Your task to perform on an android device: Search for razer thresher on amazon.com, select the first entry, add it to the cart, then select checkout. Image 0: 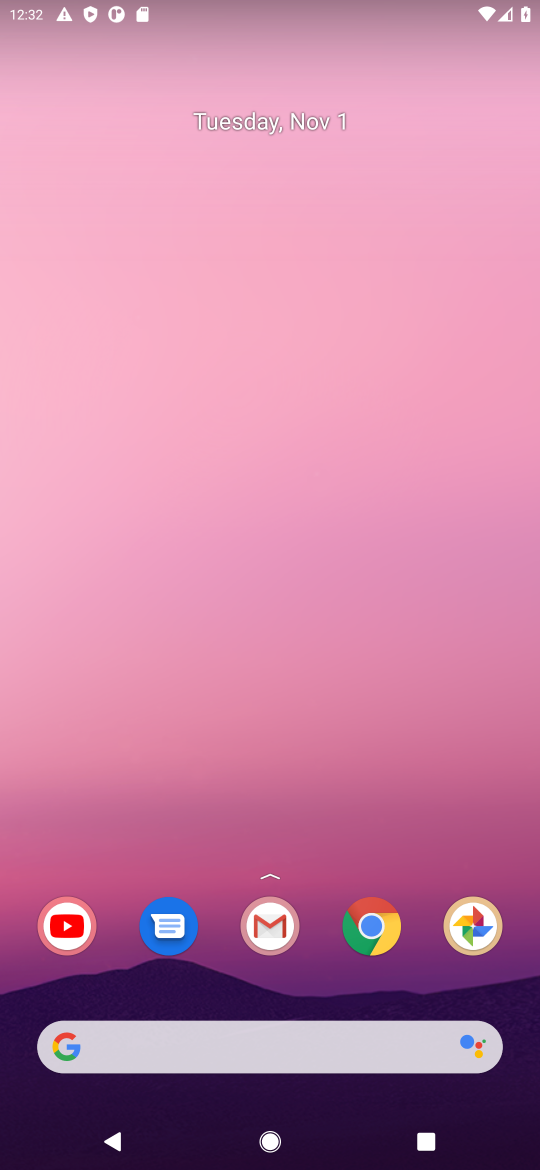
Step 0: click (368, 946)
Your task to perform on an android device: Search for razer thresher on amazon.com, select the first entry, add it to the cart, then select checkout. Image 1: 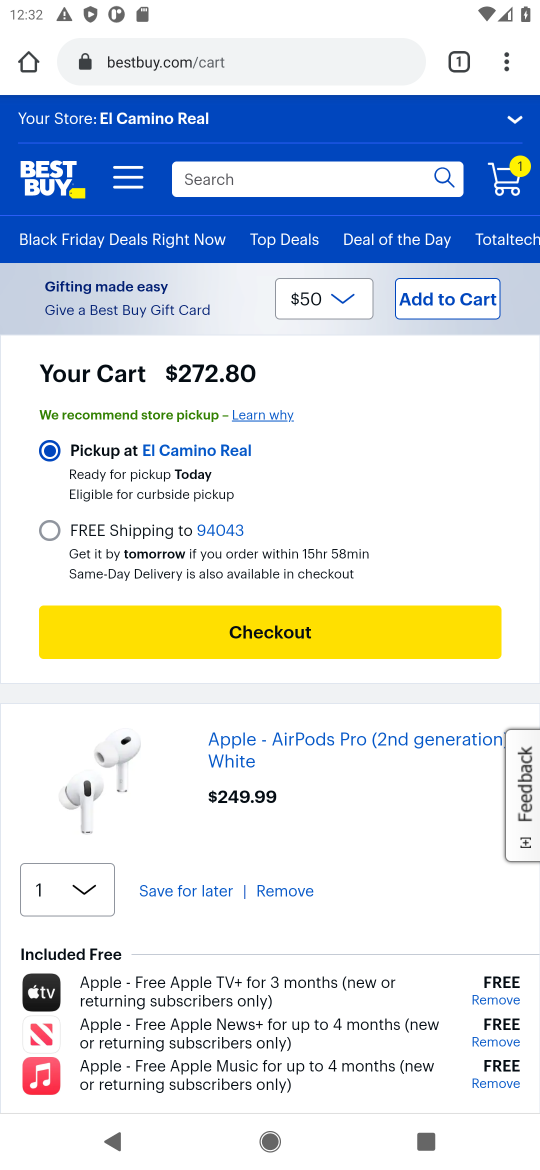
Step 1: click (187, 63)
Your task to perform on an android device: Search for razer thresher on amazon.com, select the first entry, add it to the cart, then select checkout. Image 2: 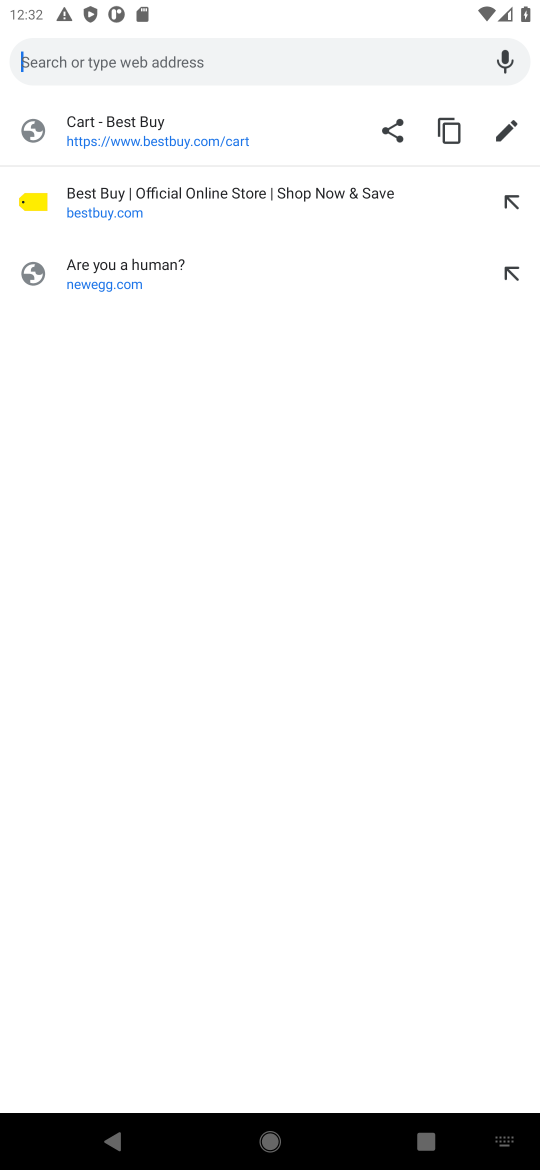
Step 2: type "amazon.com"
Your task to perform on an android device: Search for razer thresher on amazon.com, select the first entry, add it to the cart, then select checkout. Image 3: 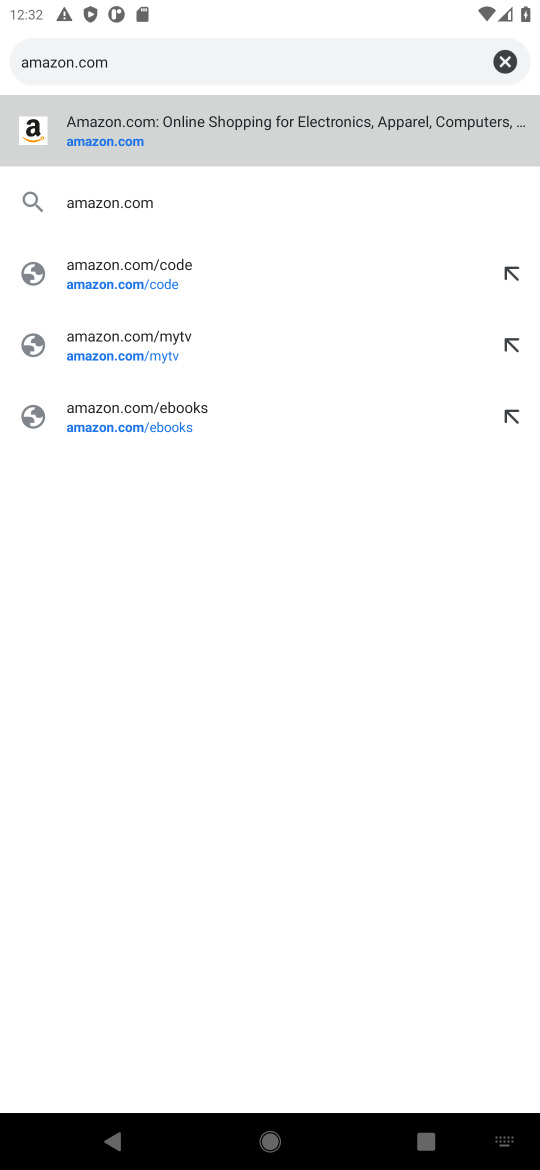
Step 3: click (306, 145)
Your task to perform on an android device: Search for razer thresher on amazon.com, select the first entry, add it to the cart, then select checkout. Image 4: 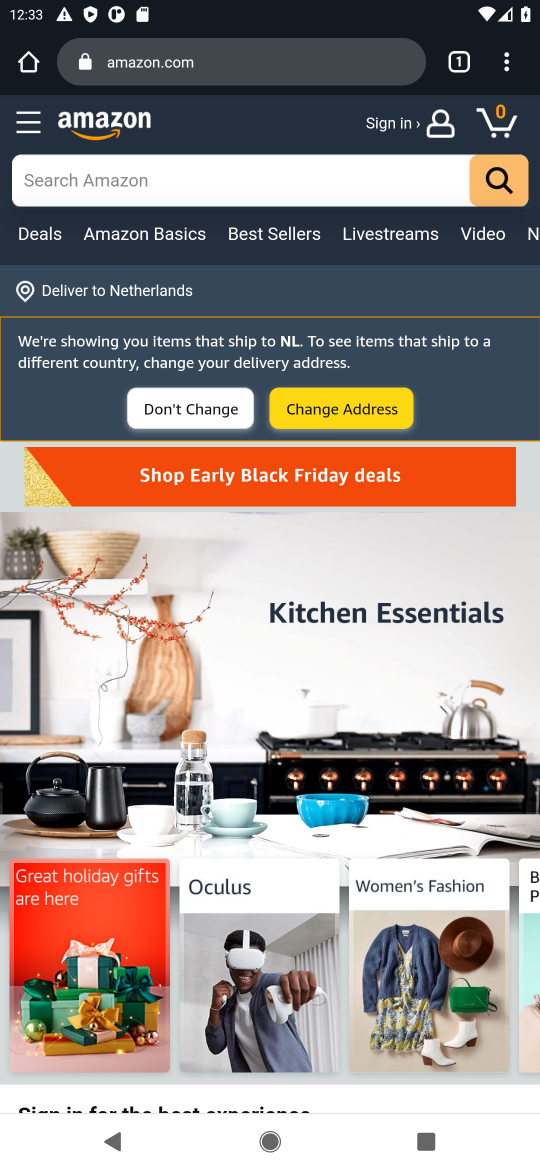
Step 4: click (300, 194)
Your task to perform on an android device: Search for razer thresher on amazon.com, select the first entry, add it to the cart, then select checkout. Image 5: 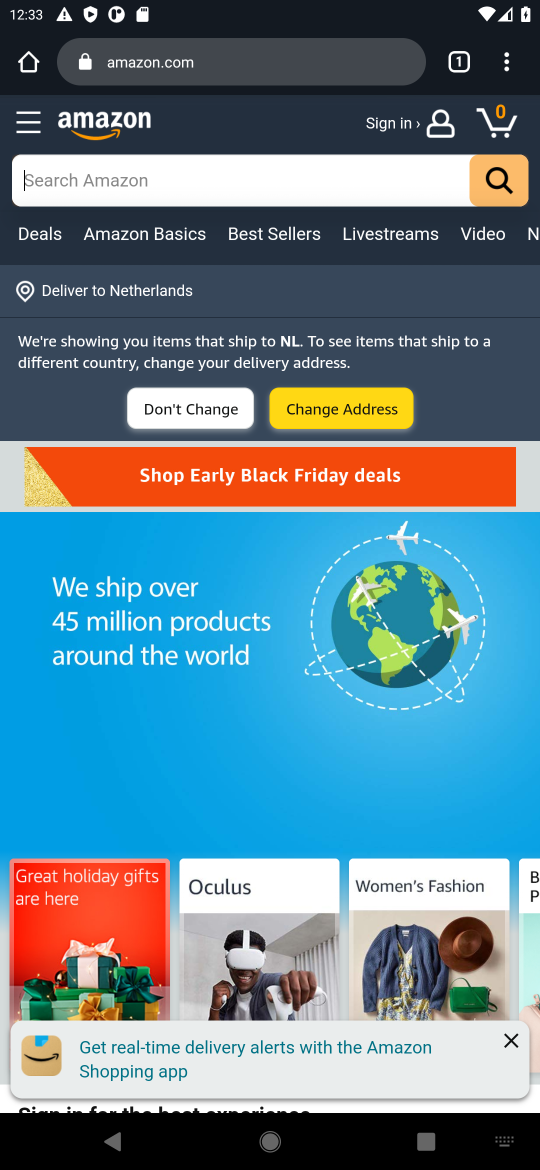
Step 5: type "razer thresher"
Your task to perform on an android device: Search for razer thresher on amazon.com, select the first entry, add it to the cart, then select checkout. Image 6: 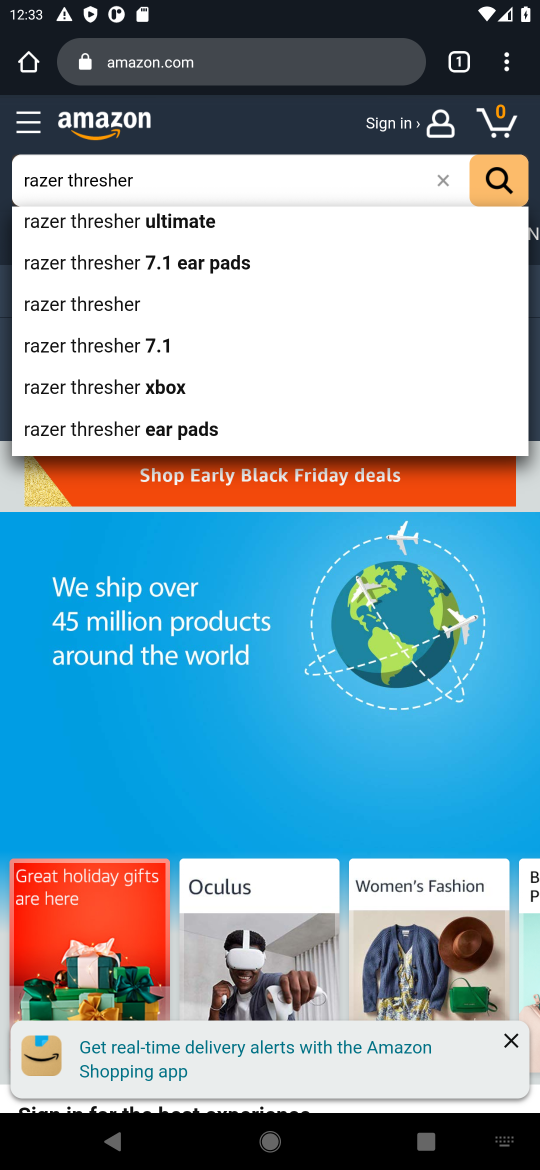
Step 6: press enter
Your task to perform on an android device: Search for razer thresher on amazon.com, select the first entry, add it to the cart, then select checkout. Image 7: 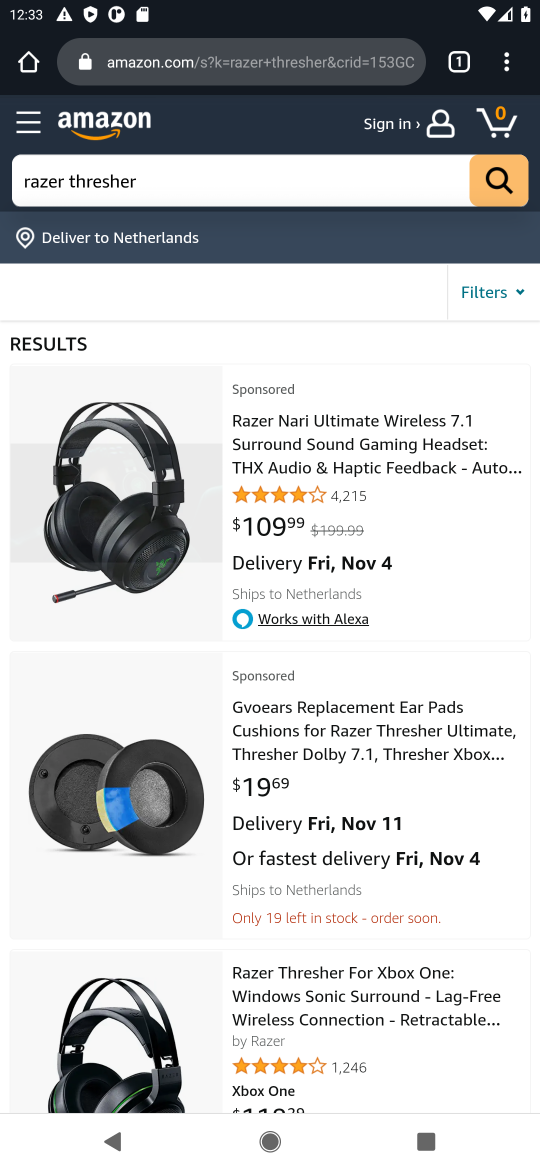
Step 7: click (71, 526)
Your task to perform on an android device: Search for razer thresher on amazon.com, select the first entry, add it to the cart, then select checkout. Image 8: 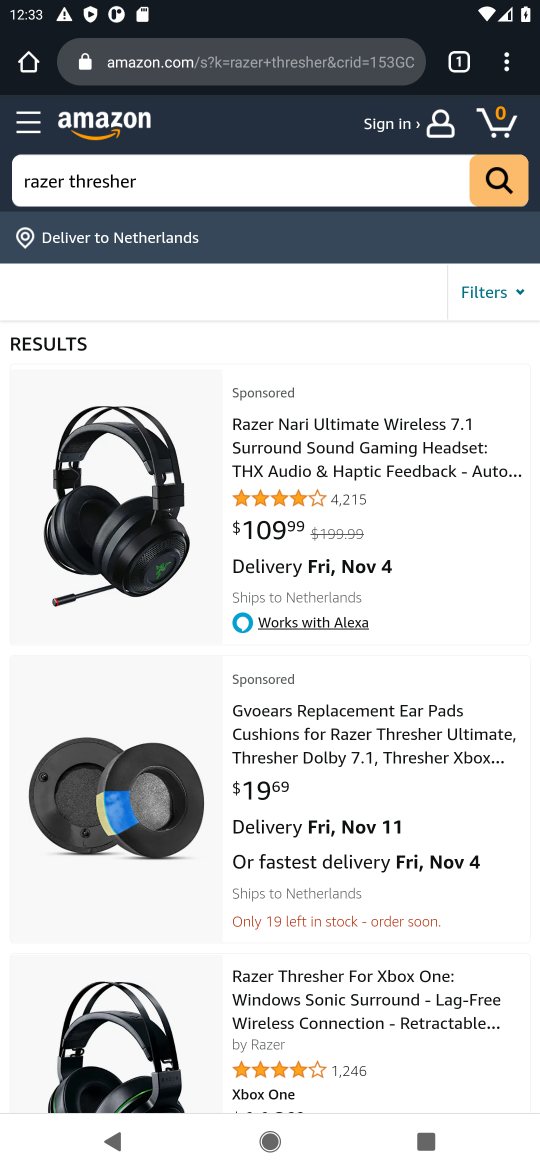
Step 8: click (144, 537)
Your task to perform on an android device: Search for razer thresher on amazon.com, select the first entry, add it to the cart, then select checkout. Image 9: 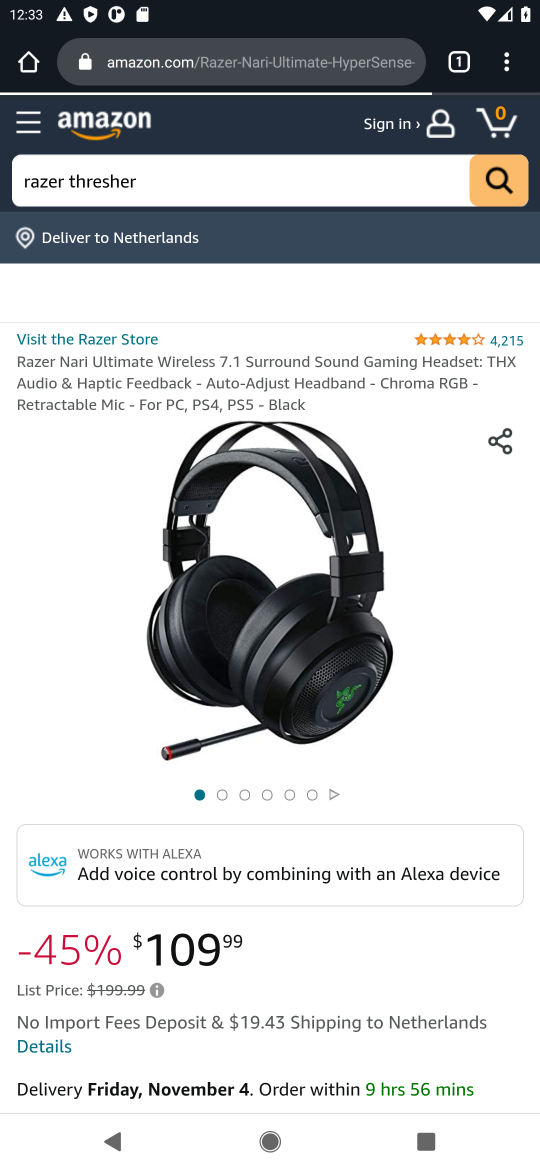
Step 9: drag from (359, 955) to (307, 354)
Your task to perform on an android device: Search for razer thresher on amazon.com, select the first entry, add it to the cart, then select checkout. Image 10: 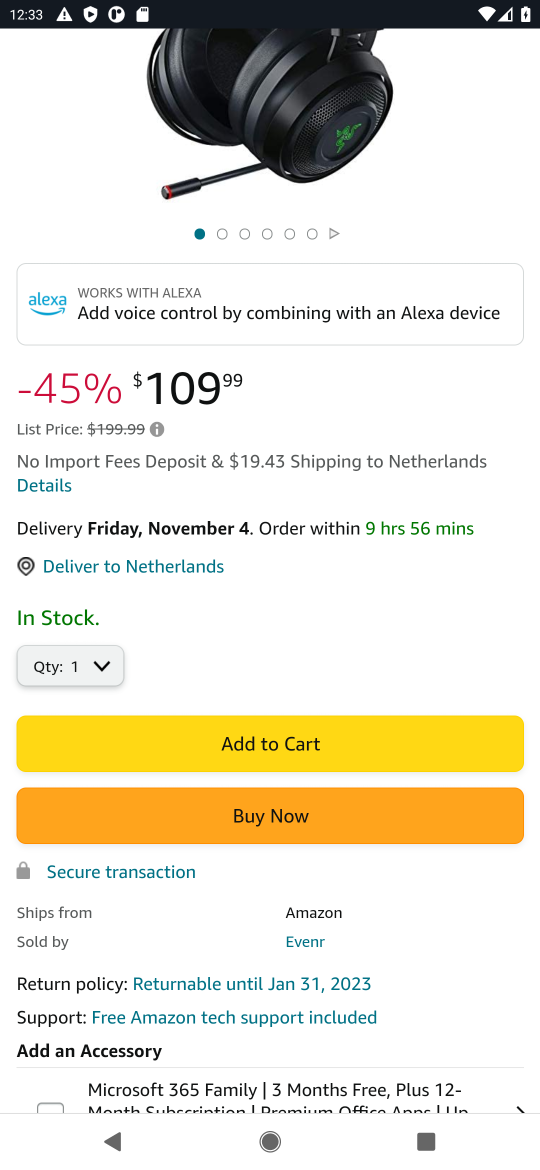
Step 10: click (271, 738)
Your task to perform on an android device: Search for razer thresher on amazon.com, select the first entry, add it to the cart, then select checkout. Image 11: 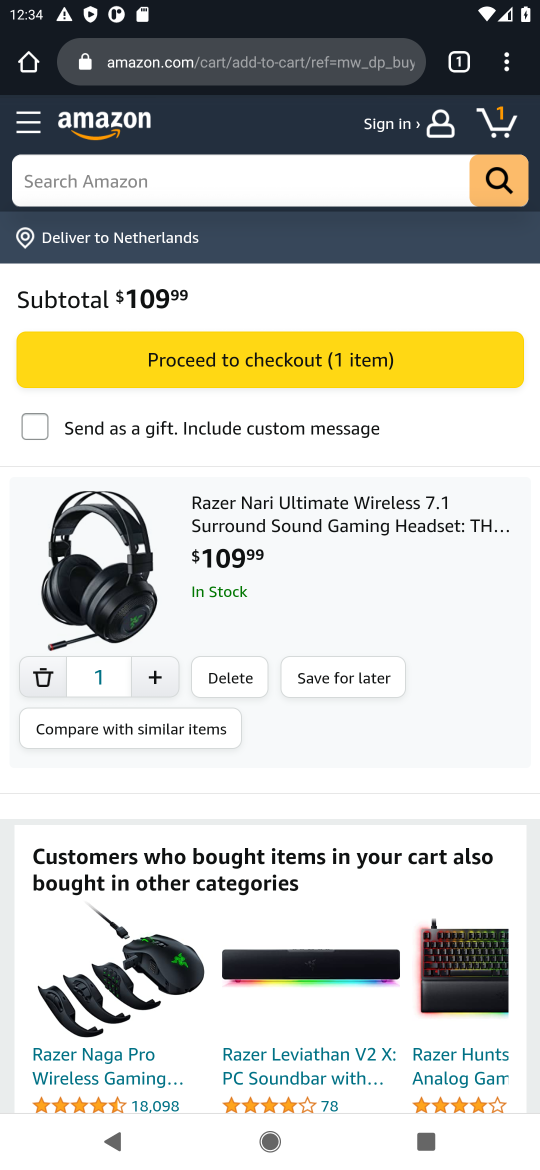
Step 11: click (314, 361)
Your task to perform on an android device: Search for razer thresher on amazon.com, select the first entry, add it to the cart, then select checkout. Image 12: 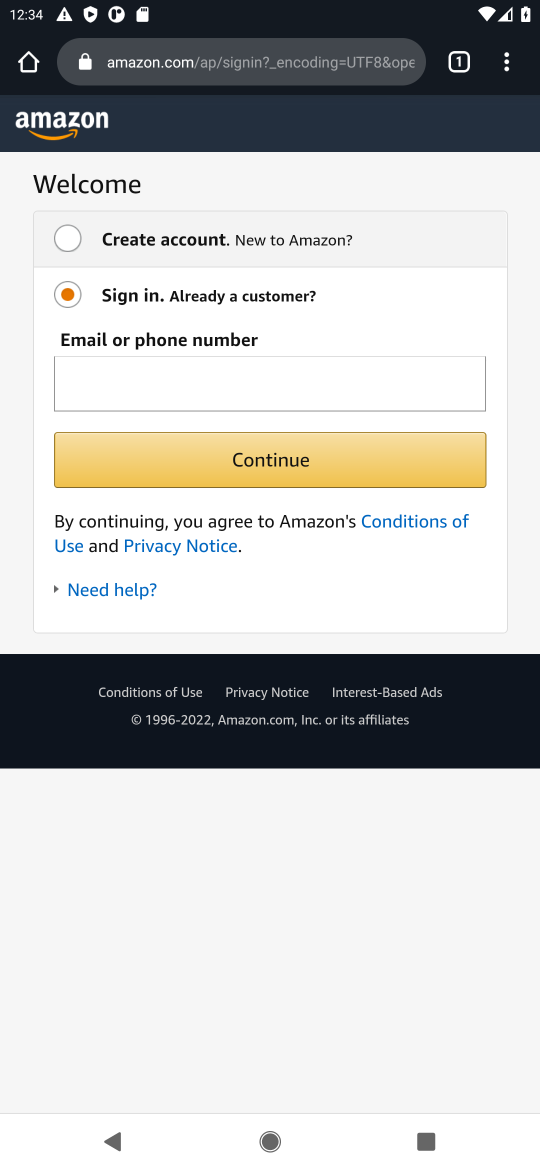
Step 12: task complete